Your task to perform on an android device: empty trash in the gmail app Image 0: 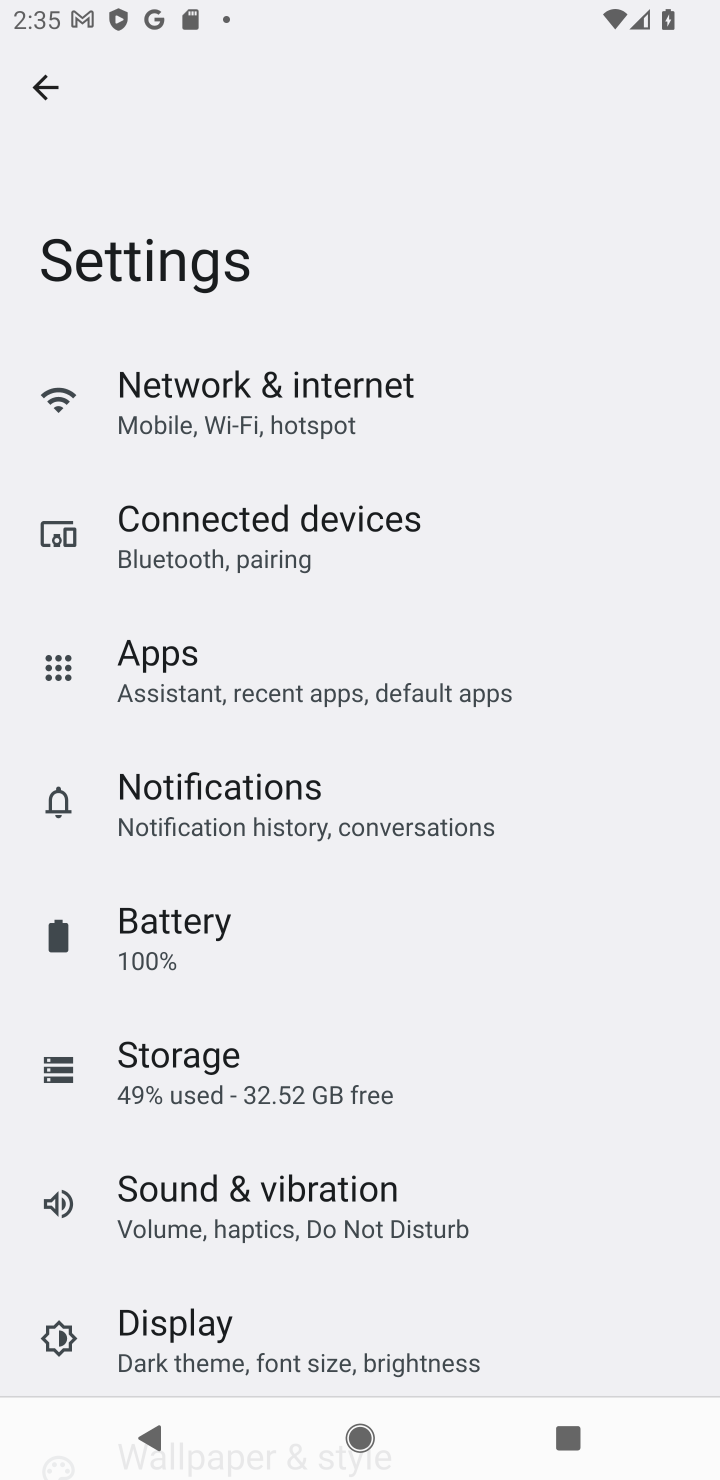
Step 0: press home button
Your task to perform on an android device: empty trash in the gmail app Image 1: 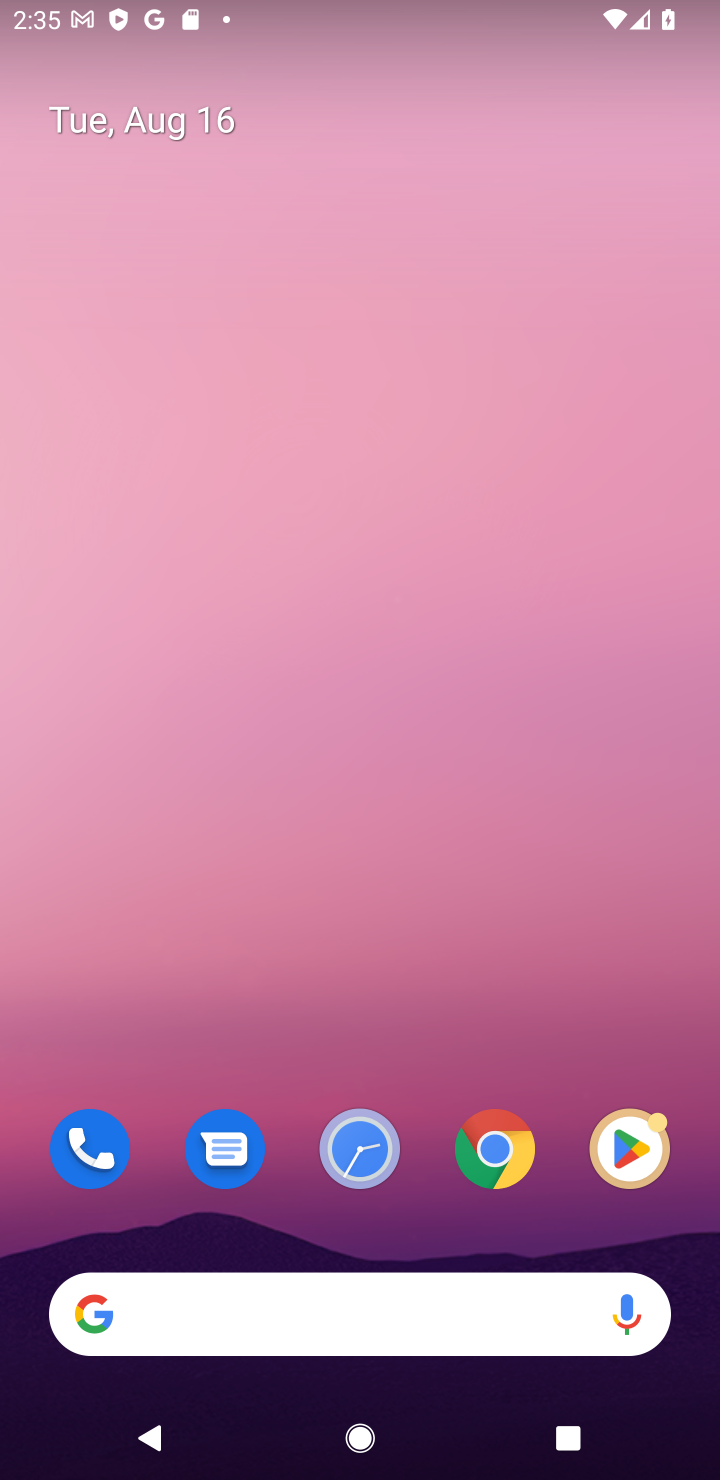
Step 1: drag from (392, 1032) to (484, 0)
Your task to perform on an android device: empty trash in the gmail app Image 2: 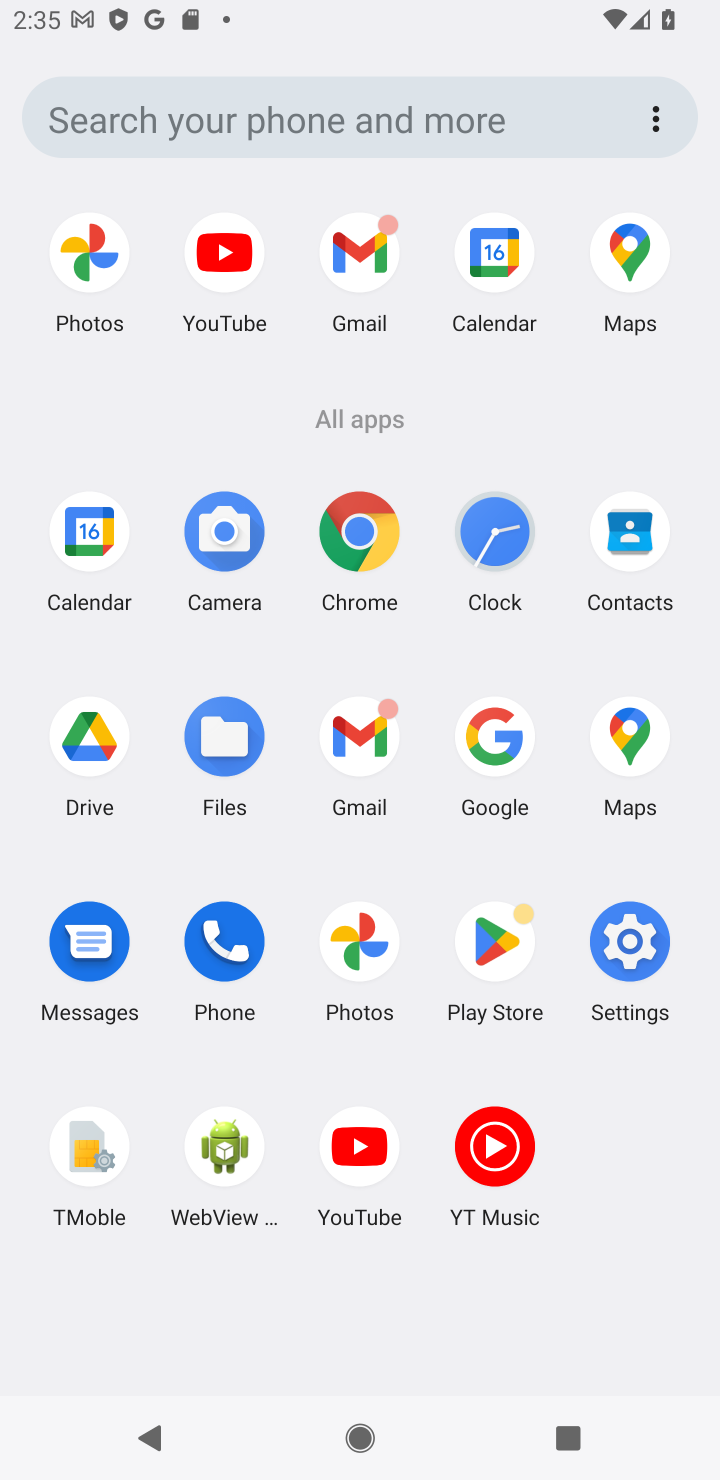
Step 2: click (346, 231)
Your task to perform on an android device: empty trash in the gmail app Image 3: 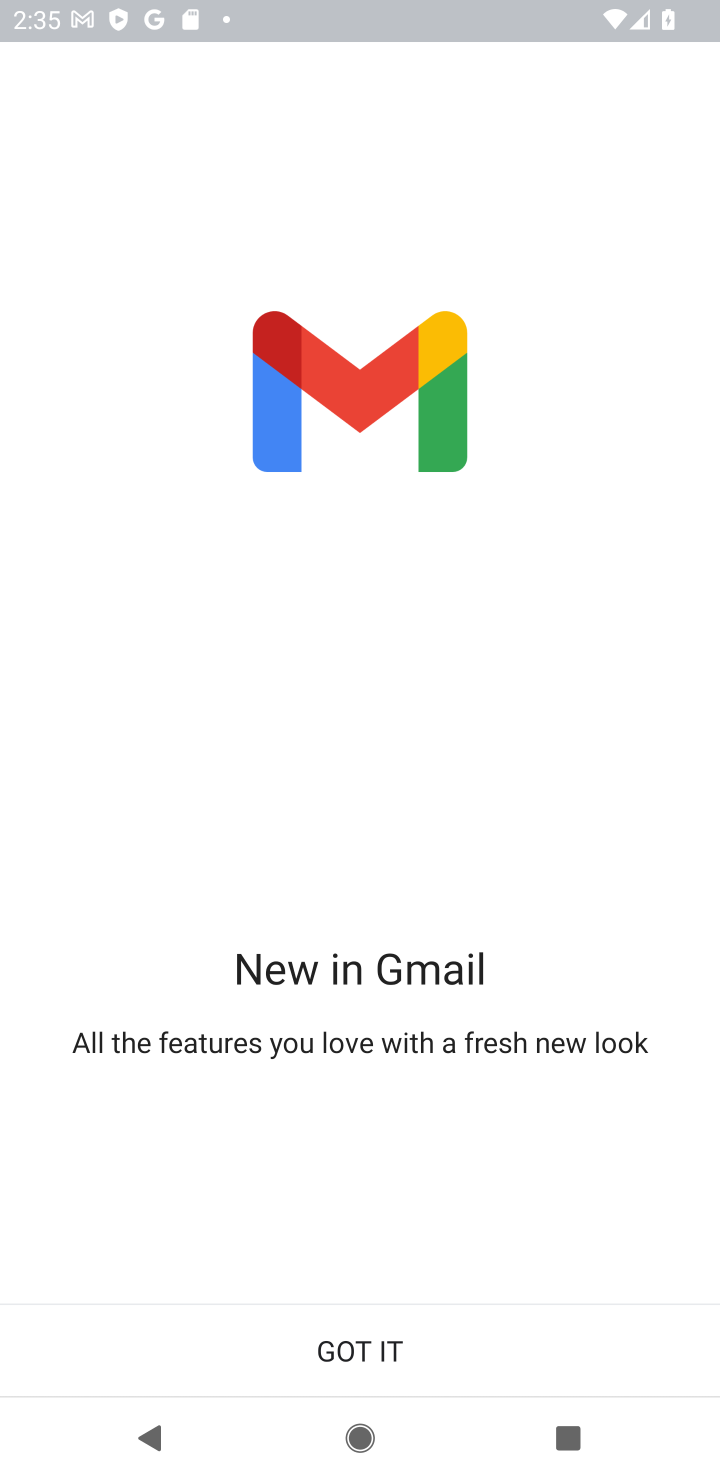
Step 3: click (387, 1346)
Your task to perform on an android device: empty trash in the gmail app Image 4: 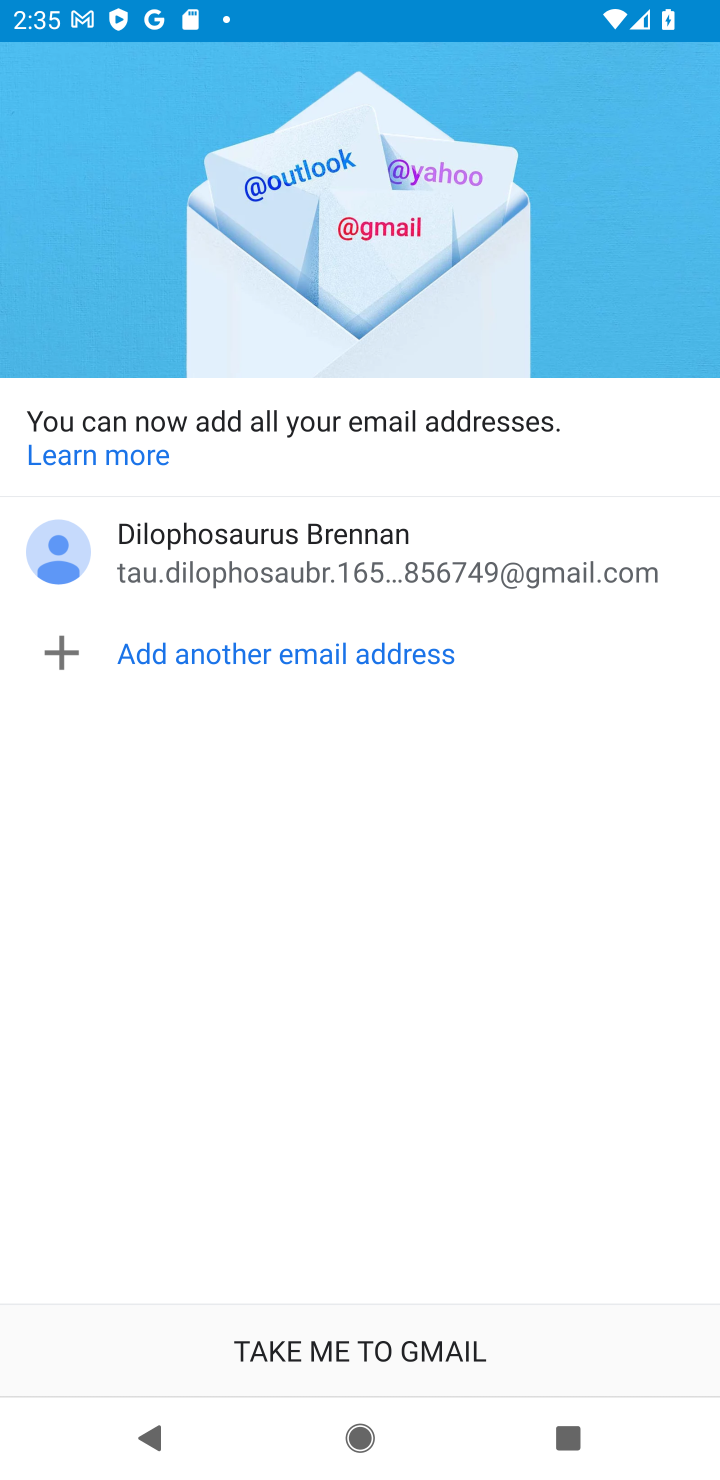
Step 4: click (433, 1349)
Your task to perform on an android device: empty trash in the gmail app Image 5: 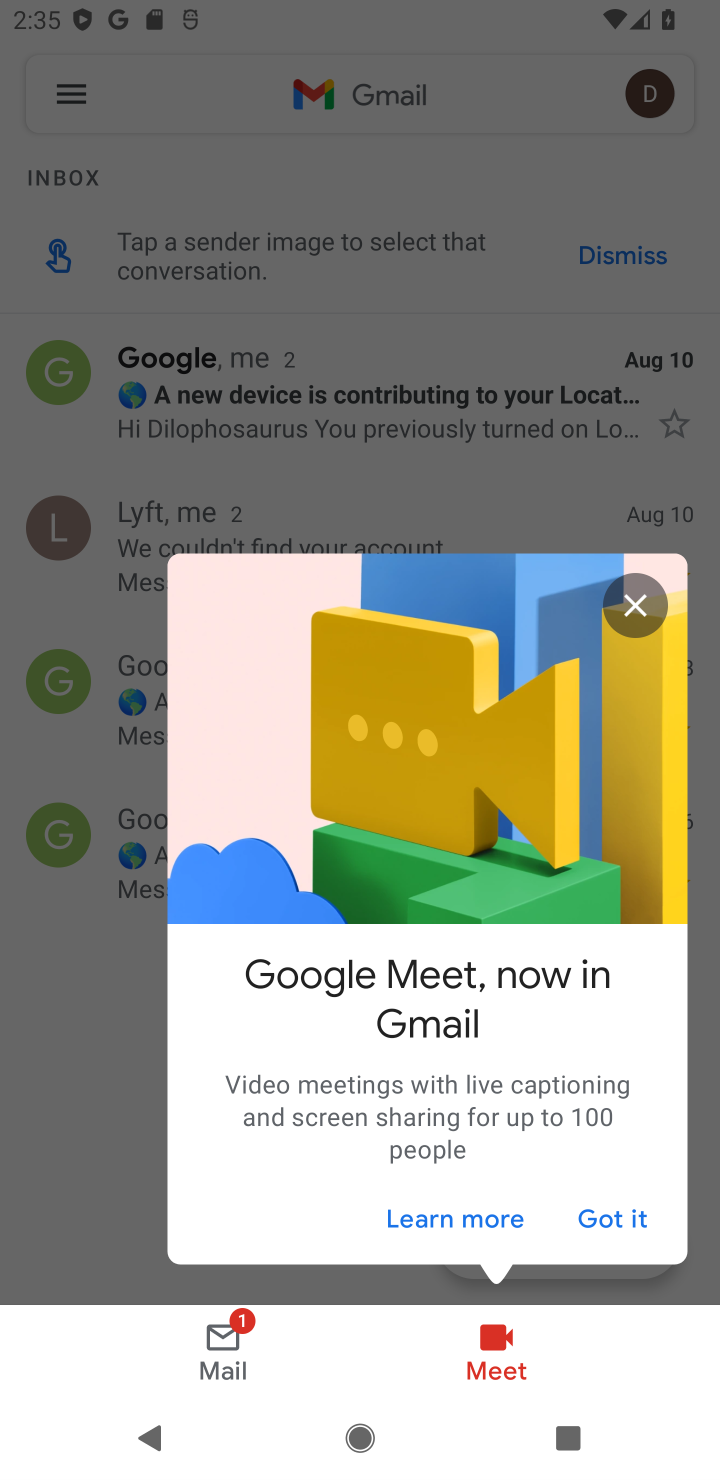
Step 5: click (641, 607)
Your task to perform on an android device: empty trash in the gmail app Image 6: 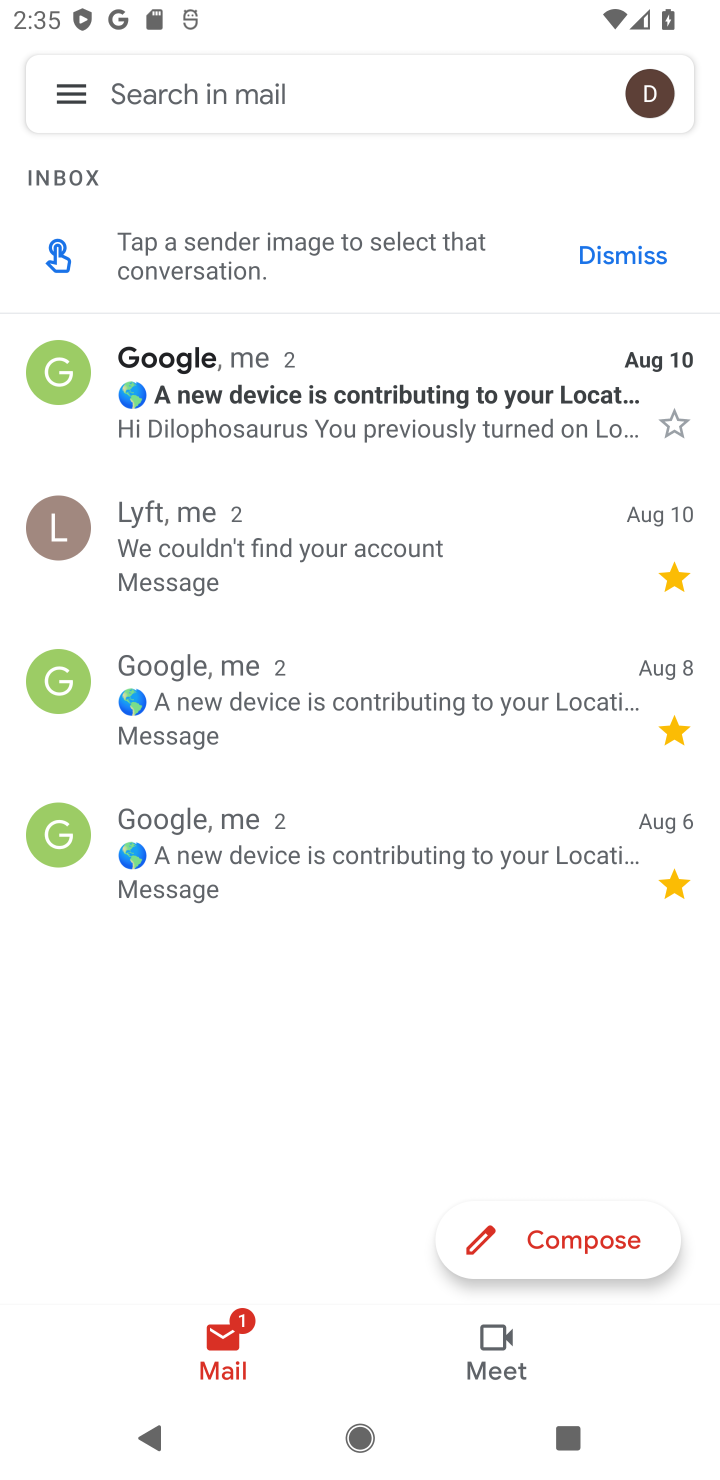
Step 6: click (67, 88)
Your task to perform on an android device: empty trash in the gmail app Image 7: 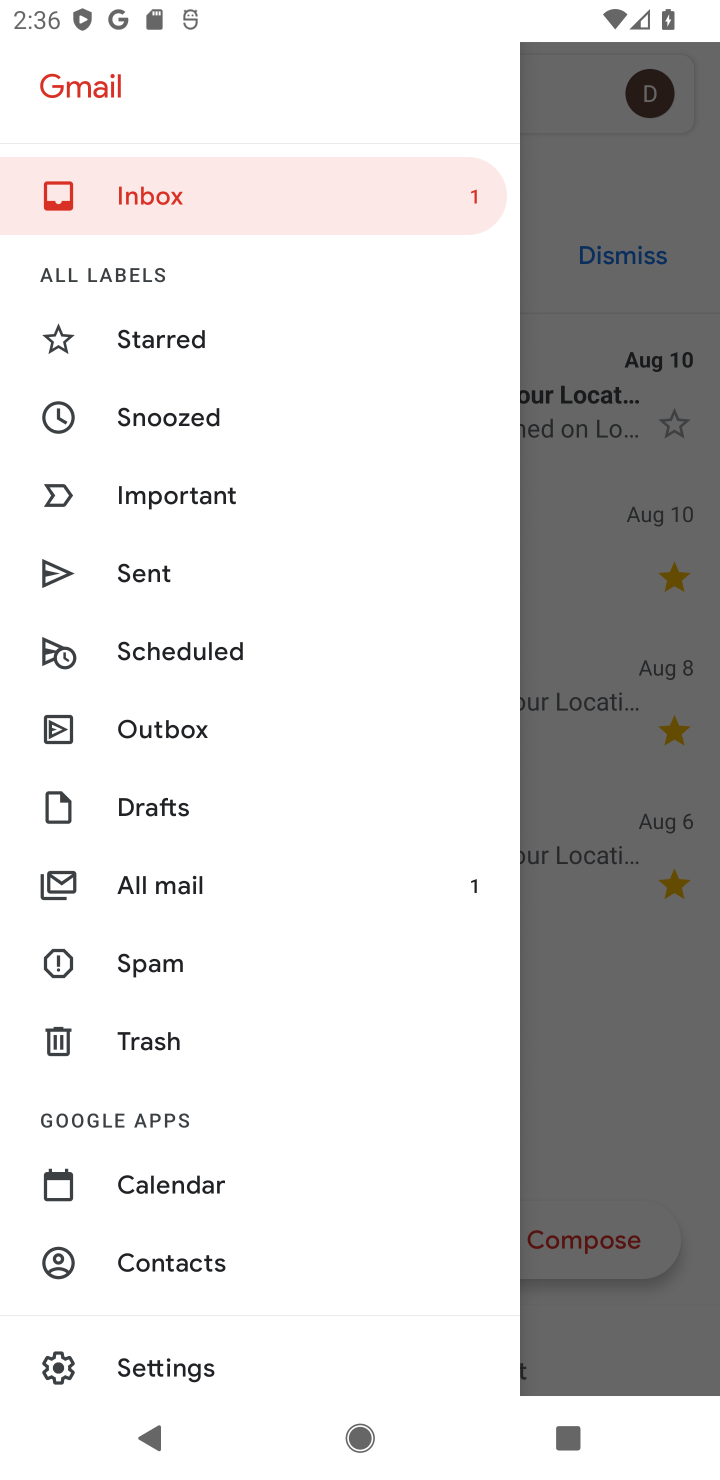
Step 7: click (146, 1036)
Your task to perform on an android device: empty trash in the gmail app Image 8: 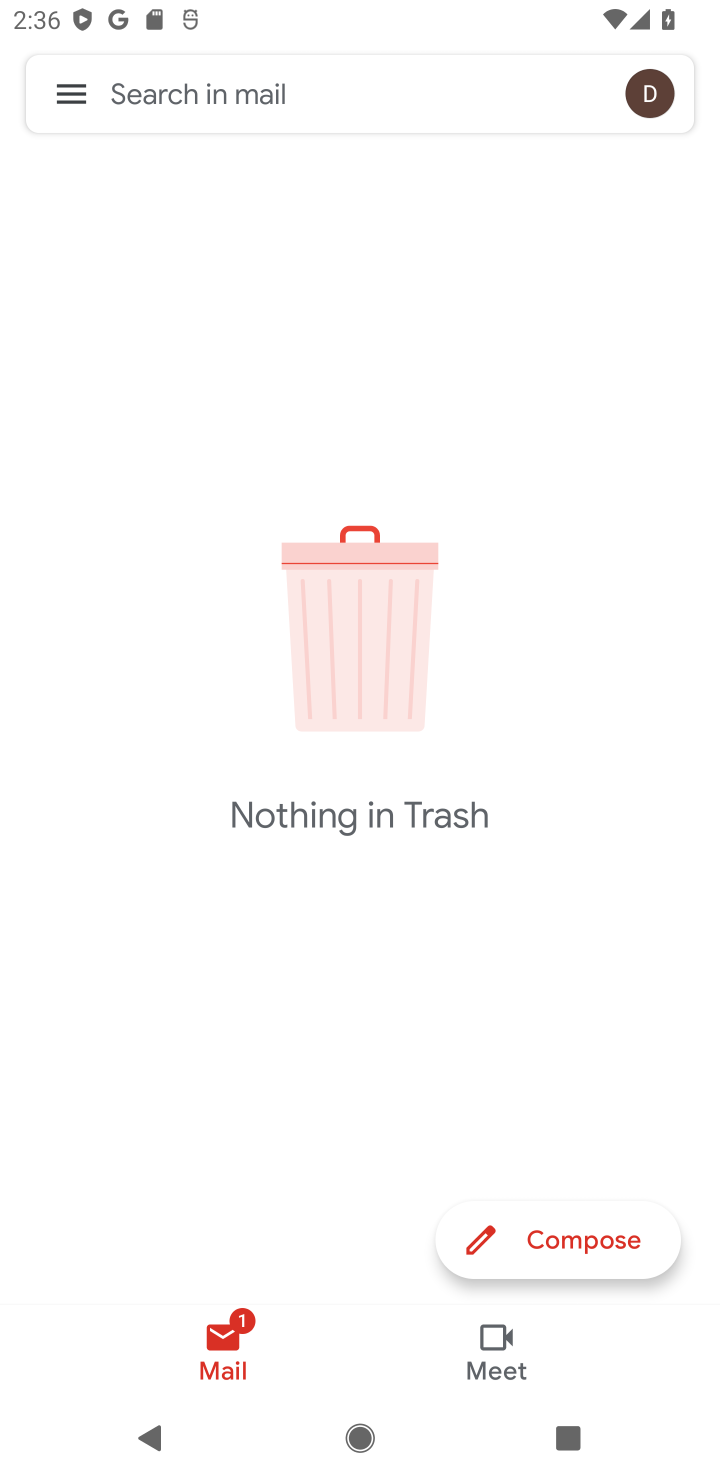
Step 8: task complete